Your task to perform on an android device: Go to privacy settings Image 0: 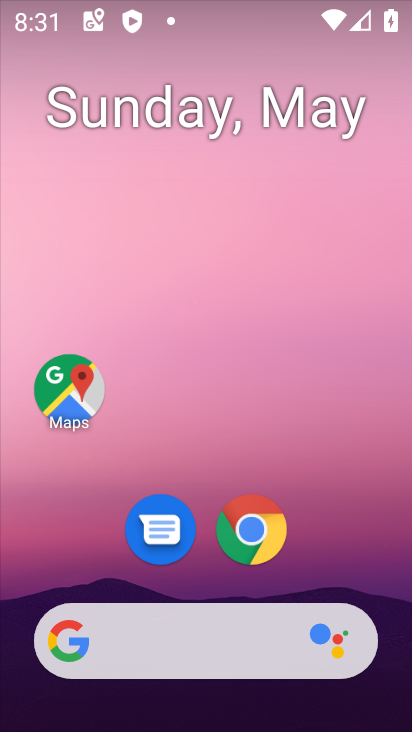
Step 0: drag from (354, 601) to (340, 18)
Your task to perform on an android device: Go to privacy settings Image 1: 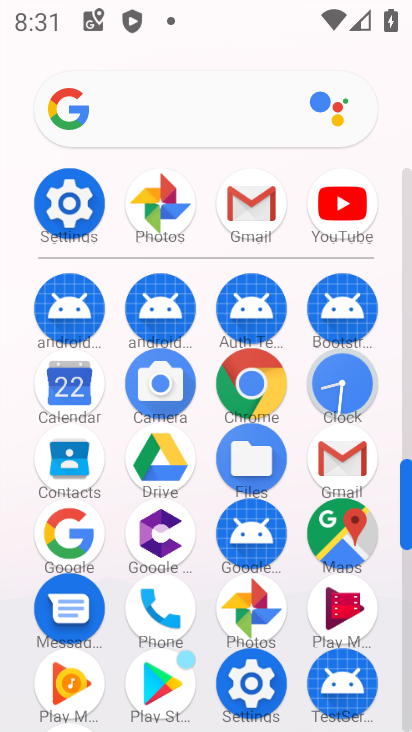
Step 1: click (67, 199)
Your task to perform on an android device: Go to privacy settings Image 2: 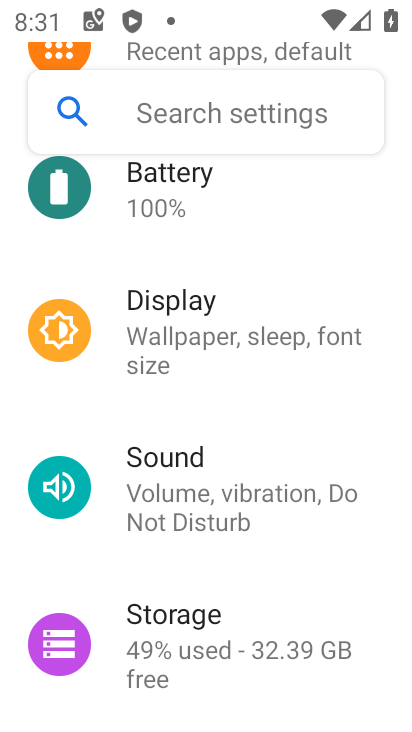
Step 2: drag from (279, 300) to (332, 719)
Your task to perform on an android device: Go to privacy settings Image 3: 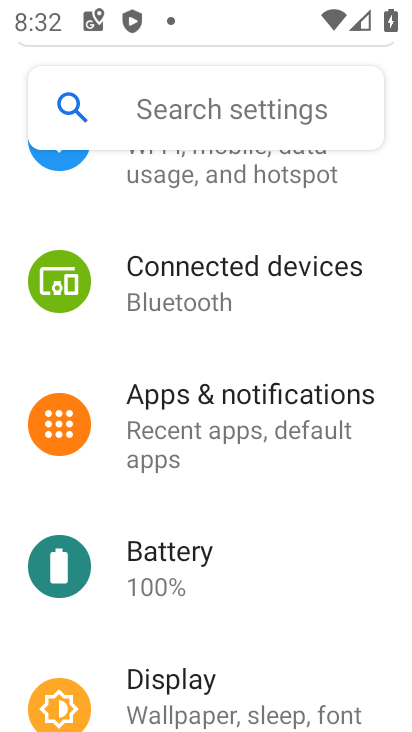
Step 3: drag from (272, 329) to (319, 661)
Your task to perform on an android device: Go to privacy settings Image 4: 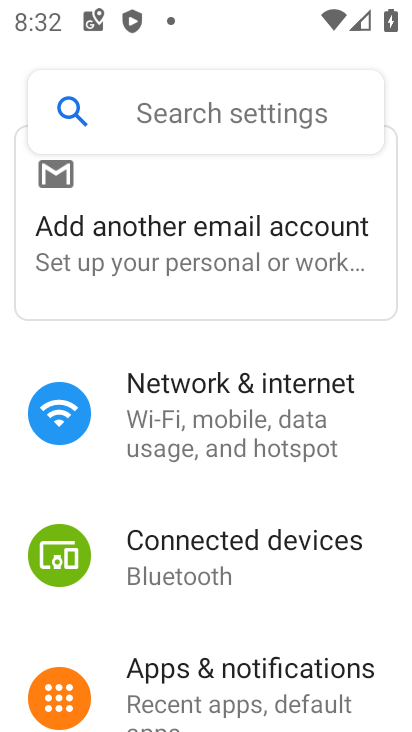
Step 4: drag from (307, 626) to (250, 137)
Your task to perform on an android device: Go to privacy settings Image 5: 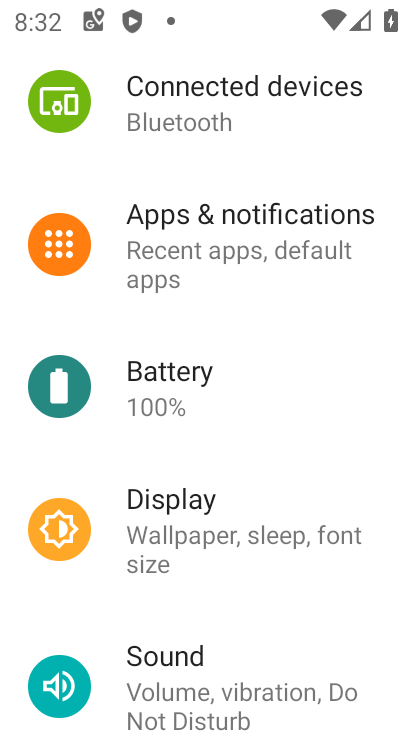
Step 5: drag from (282, 498) to (233, 29)
Your task to perform on an android device: Go to privacy settings Image 6: 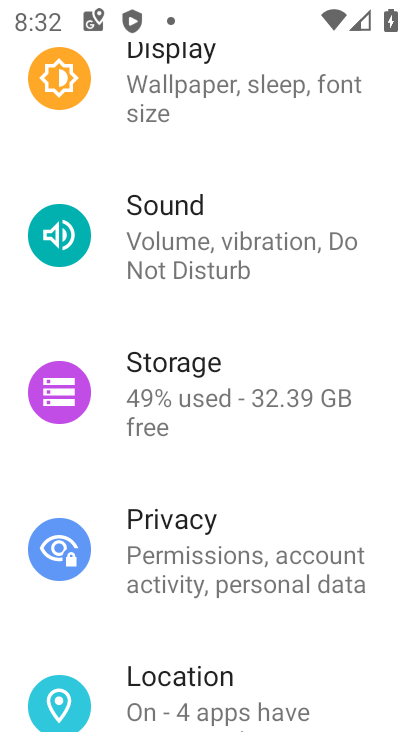
Step 6: click (173, 541)
Your task to perform on an android device: Go to privacy settings Image 7: 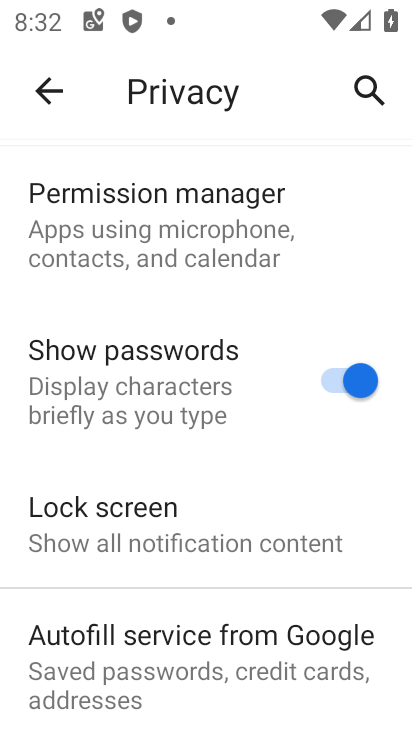
Step 7: task complete